Your task to perform on an android device: Turn off the flashlight Image 0: 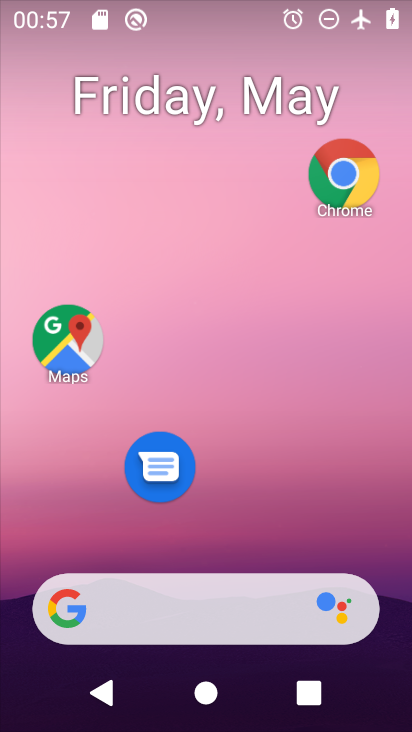
Step 0: click (341, 169)
Your task to perform on an android device: Turn off the flashlight Image 1: 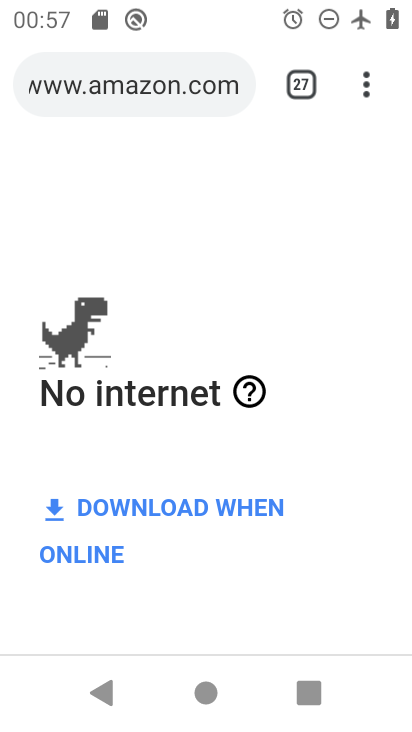
Step 1: press home button
Your task to perform on an android device: Turn off the flashlight Image 2: 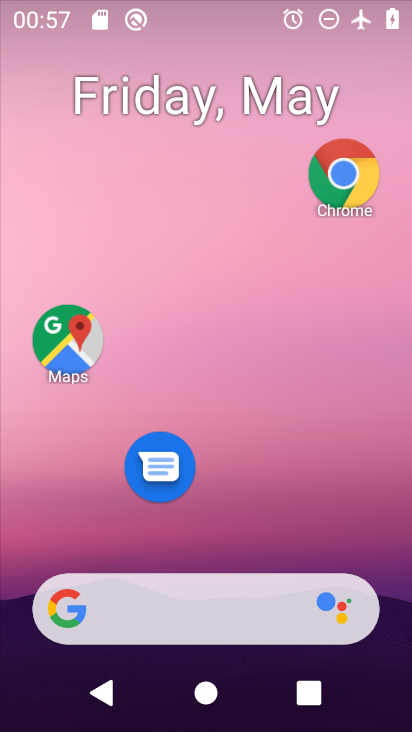
Step 2: drag from (218, 517) to (239, 265)
Your task to perform on an android device: Turn off the flashlight Image 3: 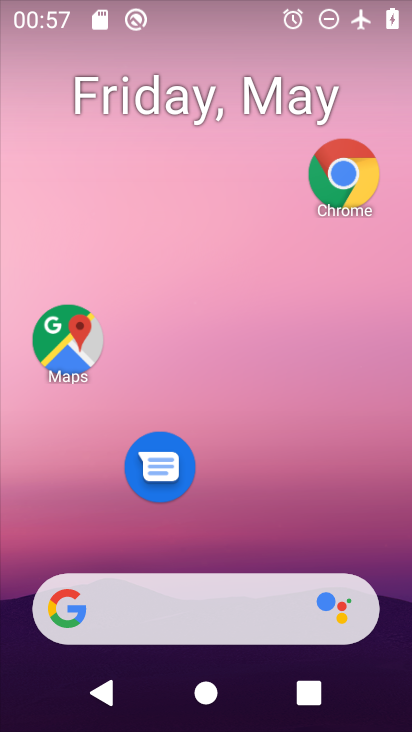
Step 3: drag from (238, 531) to (282, 176)
Your task to perform on an android device: Turn off the flashlight Image 4: 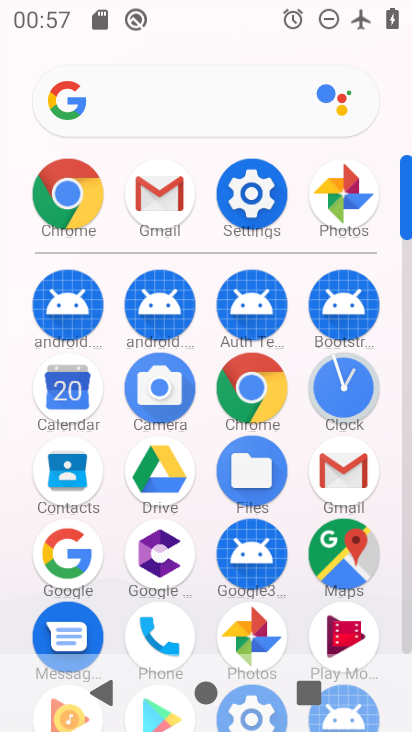
Step 4: click (250, 182)
Your task to perform on an android device: Turn off the flashlight Image 5: 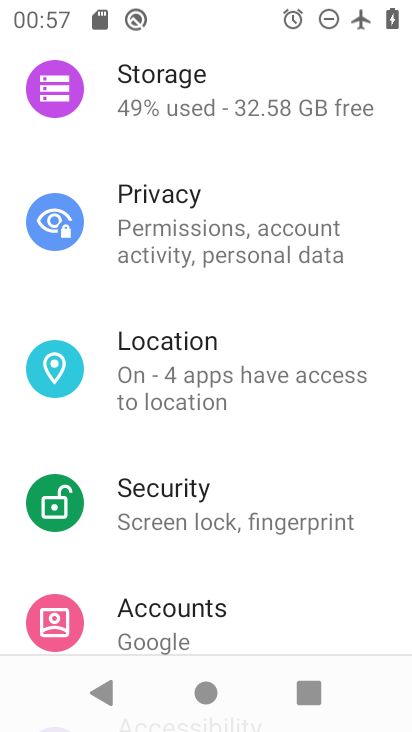
Step 5: task complete